Your task to perform on an android device: turn on bluetooth scan Image 0: 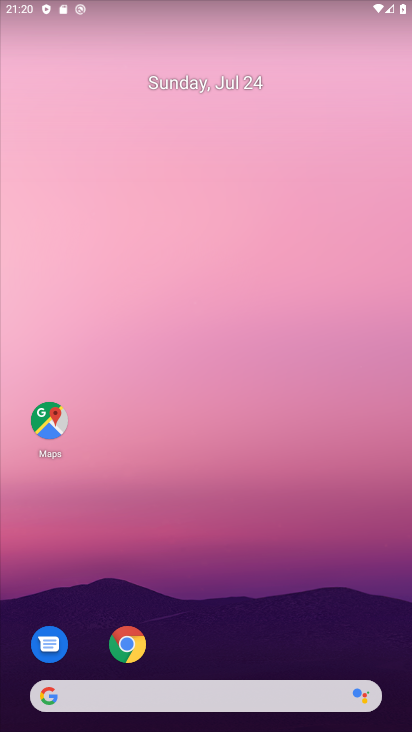
Step 0: drag from (377, 651) to (333, 119)
Your task to perform on an android device: turn on bluetooth scan Image 1: 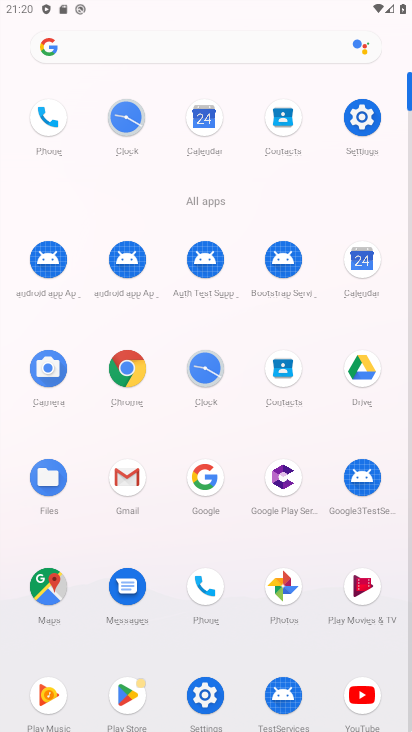
Step 1: click (206, 694)
Your task to perform on an android device: turn on bluetooth scan Image 2: 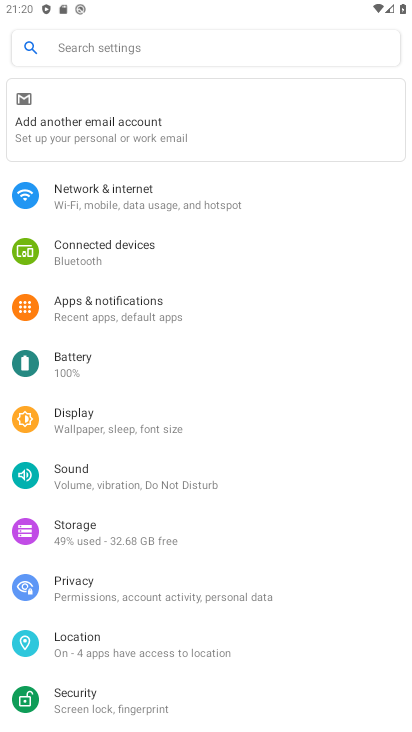
Step 2: click (87, 649)
Your task to perform on an android device: turn on bluetooth scan Image 3: 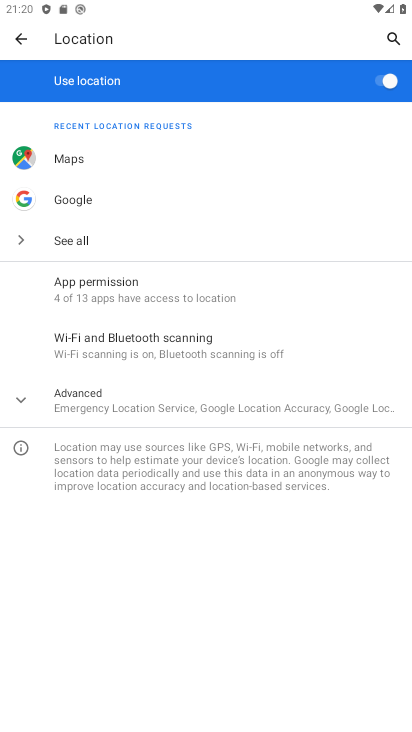
Step 3: click (36, 400)
Your task to perform on an android device: turn on bluetooth scan Image 4: 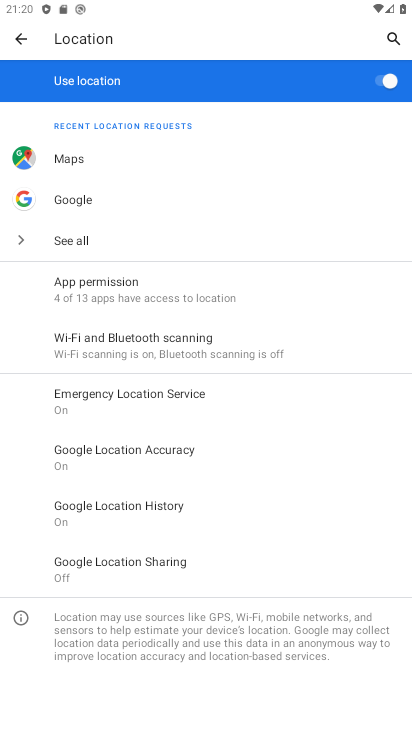
Step 4: click (125, 340)
Your task to perform on an android device: turn on bluetooth scan Image 5: 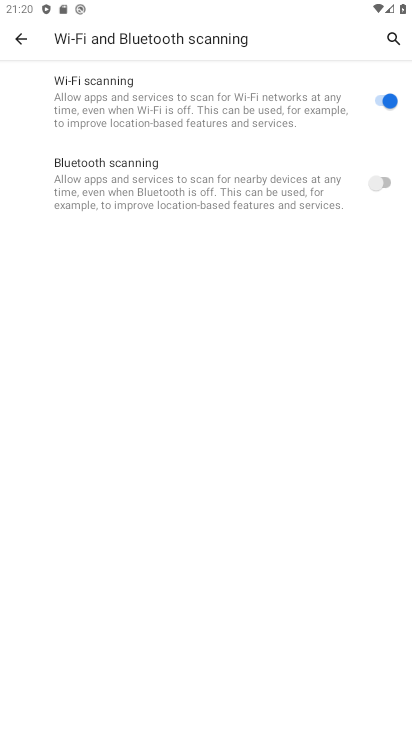
Step 5: click (386, 180)
Your task to perform on an android device: turn on bluetooth scan Image 6: 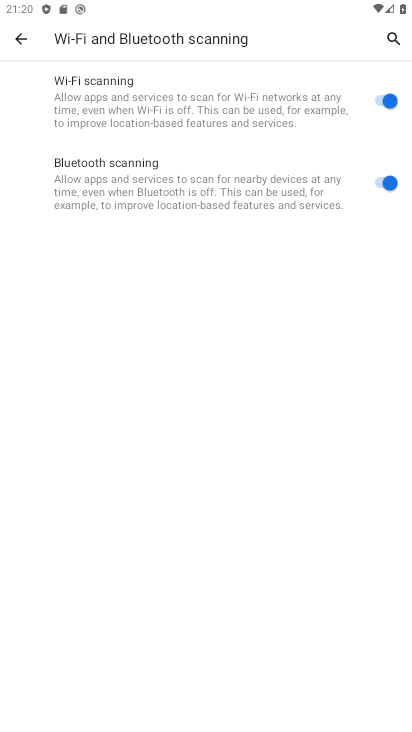
Step 6: task complete